Your task to perform on an android device: Toggle the flashlight Image 0: 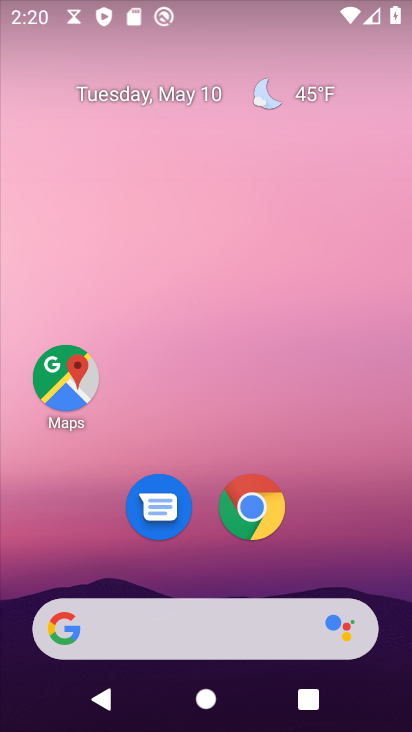
Step 0: drag from (338, 524) to (252, 181)
Your task to perform on an android device: Toggle the flashlight Image 1: 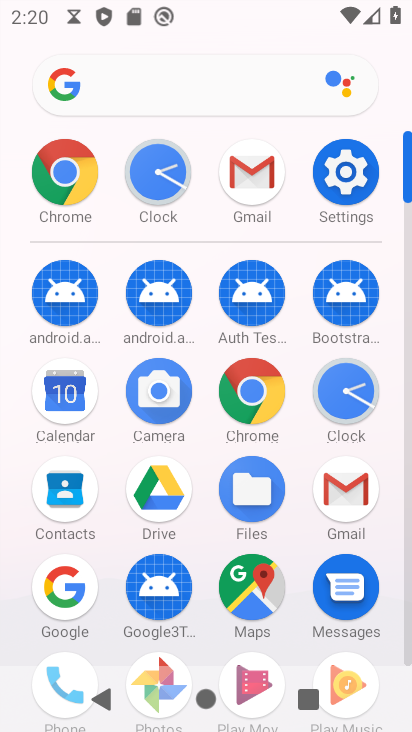
Step 1: click (339, 181)
Your task to perform on an android device: Toggle the flashlight Image 2: 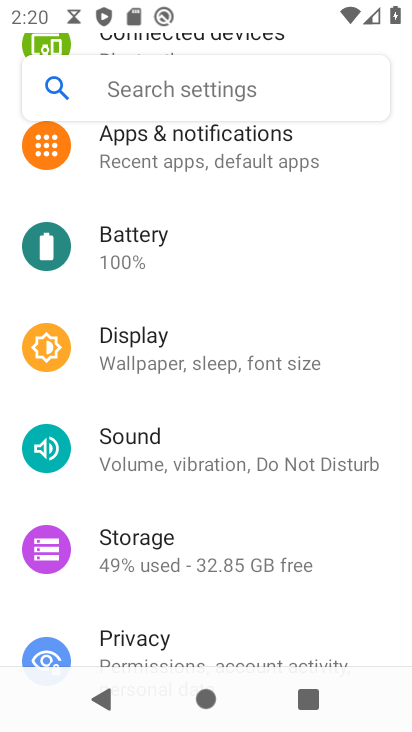
Step 2: click (219, 92)
Your task to perform on an android device: Toggle the flashlight Image 3: 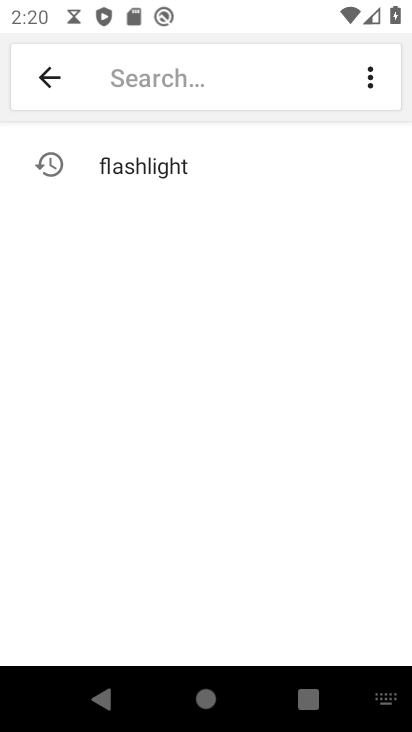
Step 3: click (120, 167)
Your task to perform on an android device: Toggle the flashlight Image 4: 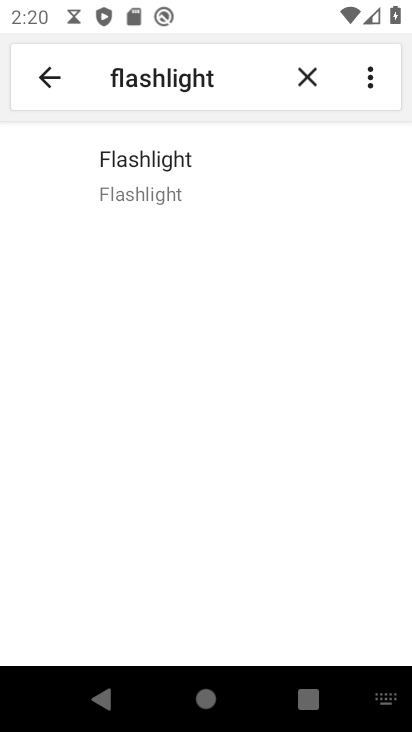
Step 4: click (120, 167)
Your task to perform on an android device: Toggle the flashlight Image 5: 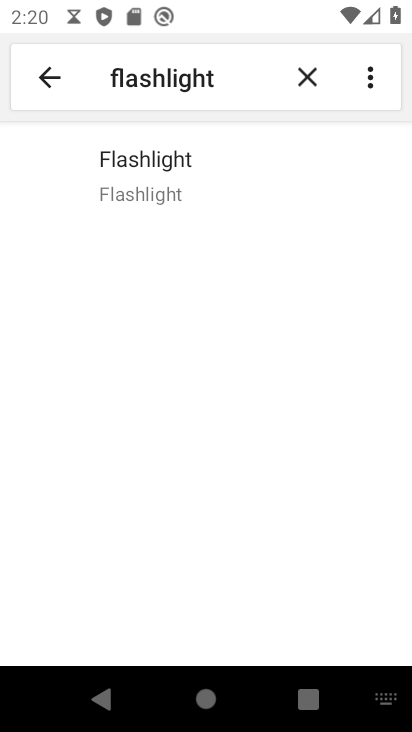
Step 5: click (120, 166)
Your task to perform on an android device: Toggle the flashlight Image 6: 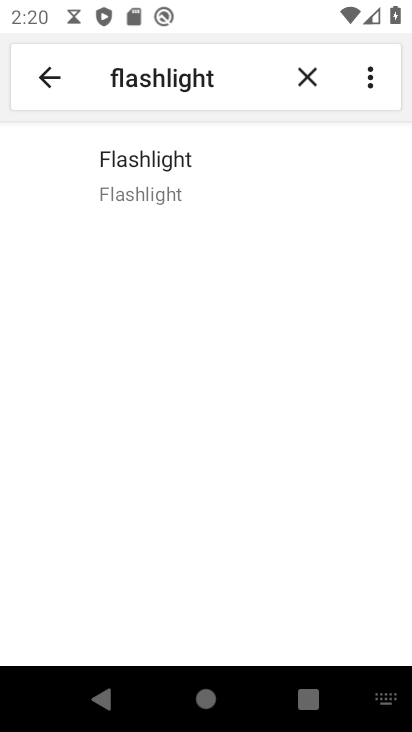
Step 6: click (120, 166)
Your task to perform on an android device: Toggle the flashlight Image 7: 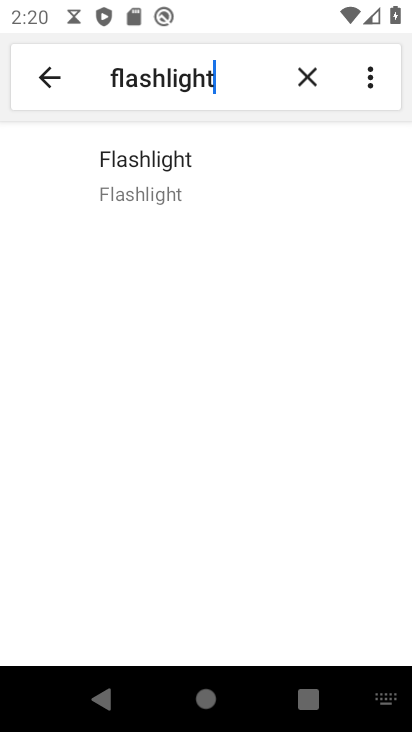
Step 7: task complete